Your task to perform on an android device: Open eBay Image 0: 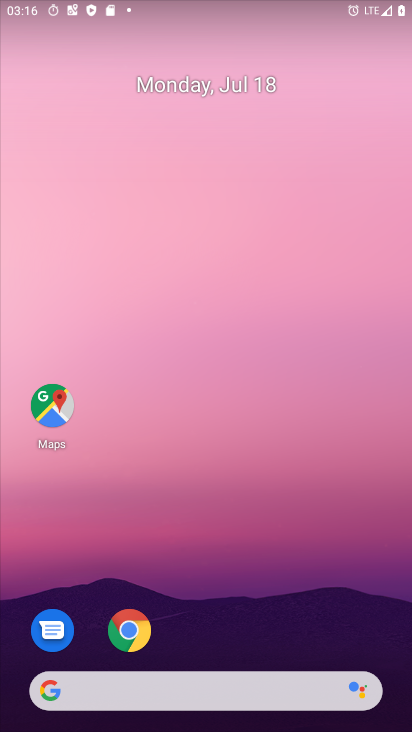
Step 0: click (125, 627)
Your task to perform on an android device: Open eBay Image 1: 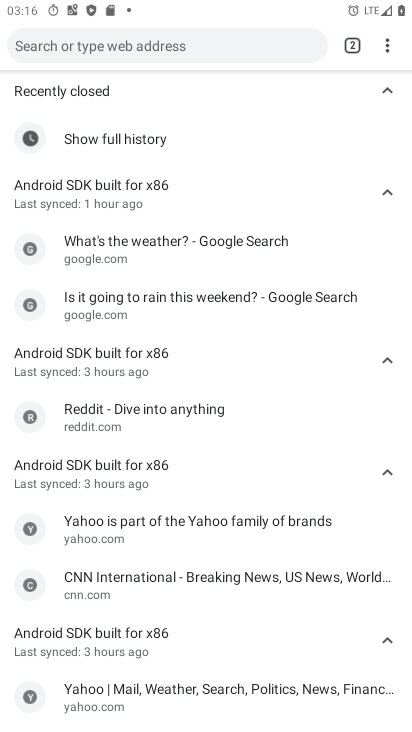
Step 1: click (360, 47)
Your task to perform on an android device: Open eBay Image 2: 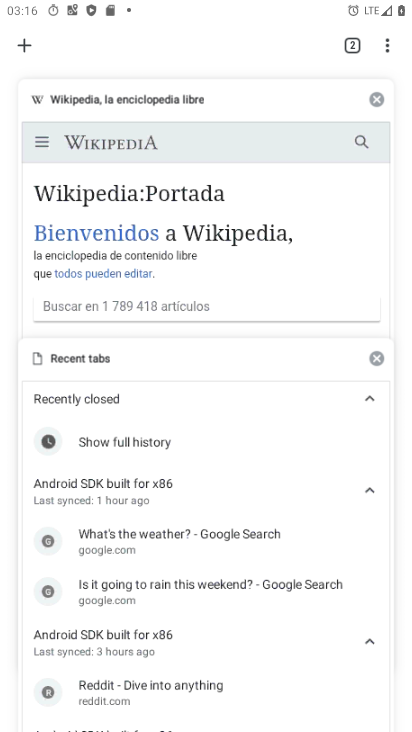
Step 2: click (18, 47)
Your task to perform on an android device: Open eBay Image 3: 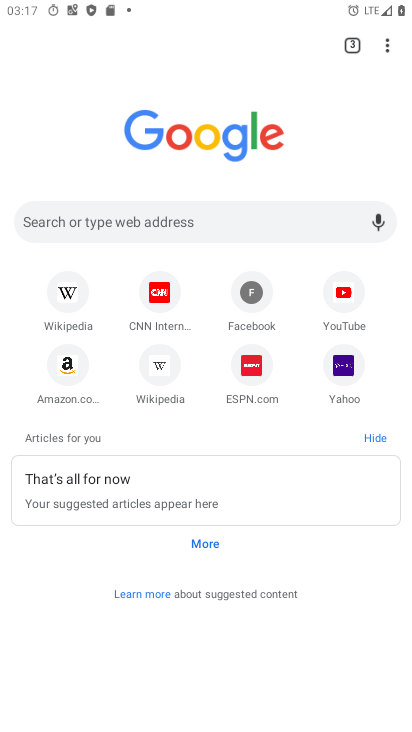
Step 3: click (184, 233)
Your task to perform on an android device: Open eBay Image 4: 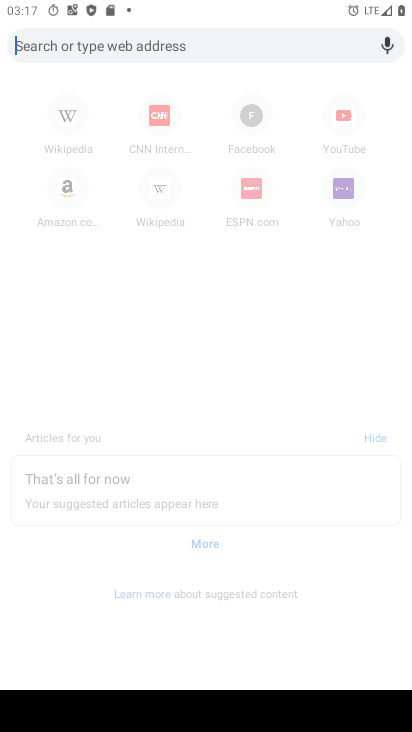
Step 4: type "ebay"
Your task to perform on an android device: Open eBay Image 5: 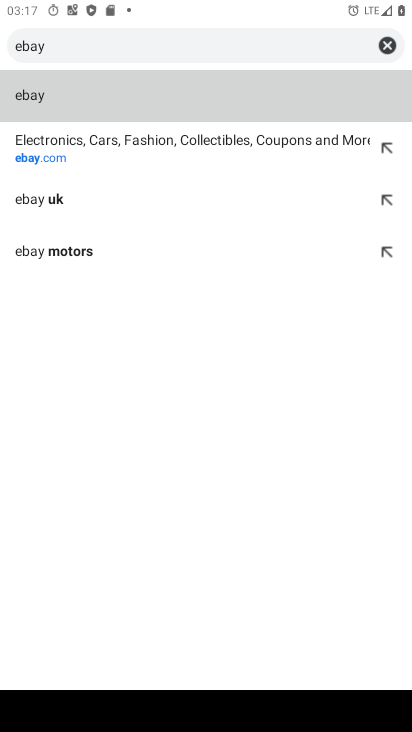
Step 5: click (126, 167)
Your task to perform on an android device: Open eBay Image 6: 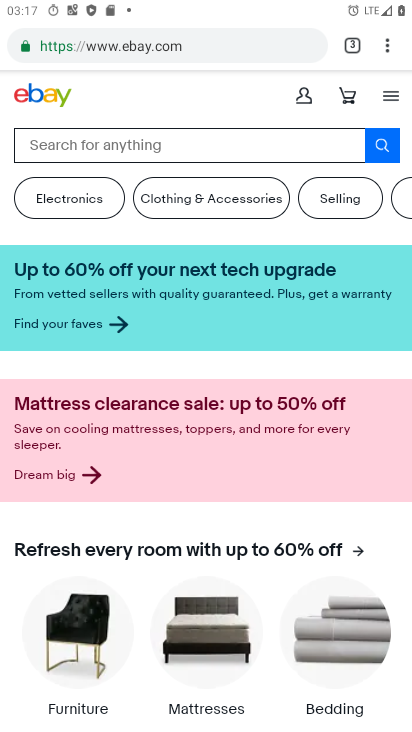
Step 6: task complete